Your task to perform on an android device: snooze an email in the gmail app Image 0: 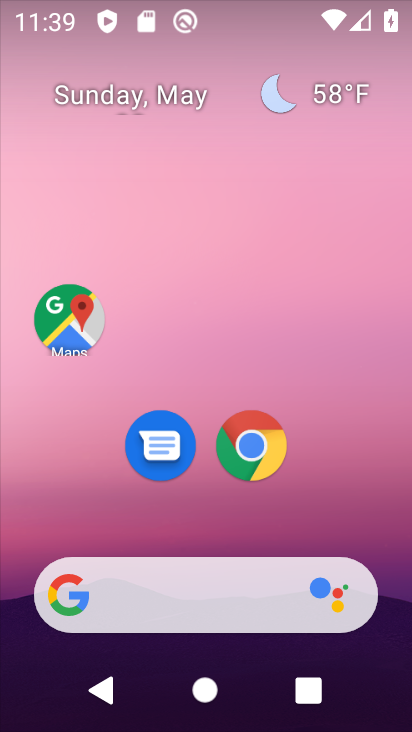
Step 0: drag from (218, 522) to (236, 286)
Your task to perform on an android device: snooze an email in the gmail app Image 1: 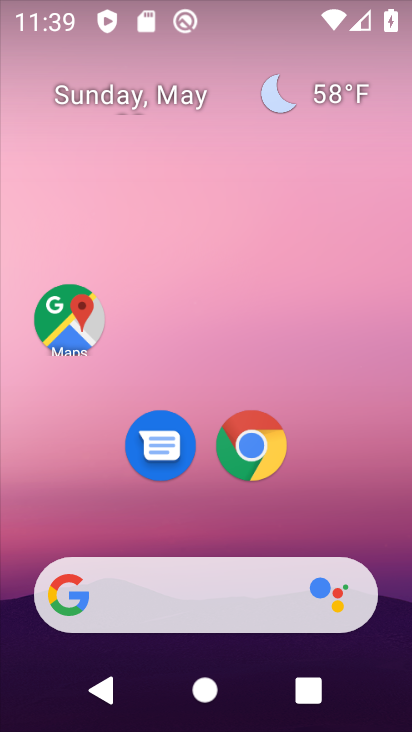
Step 1: drag from (218, 539) to (214, 86)
Your task to perform on an android device: snooze an email in the gmail app Image 2: 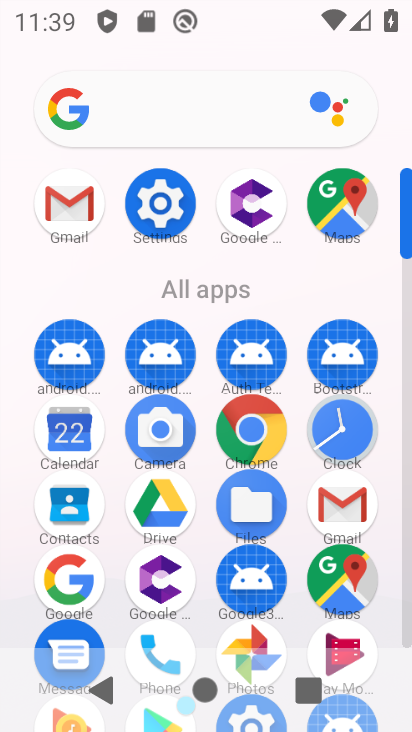
Step 2: click (339, 497)
Your task to perform on an android device: snooze an email in the gmail app Image 3: 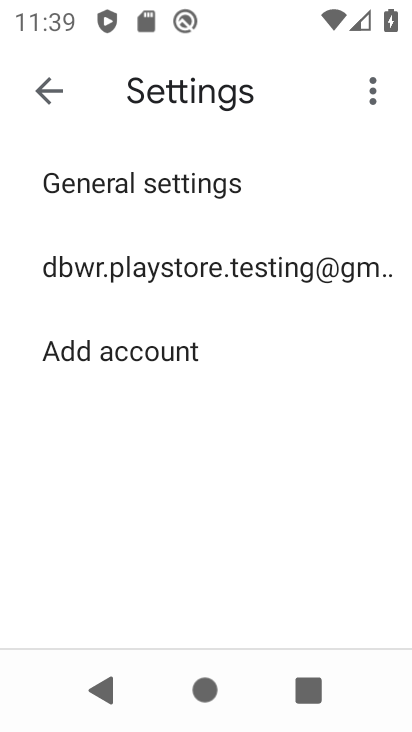
Step 3: click (52, 82)
Your task to perform on an android device: snooze an email in the gmail app Image 4: 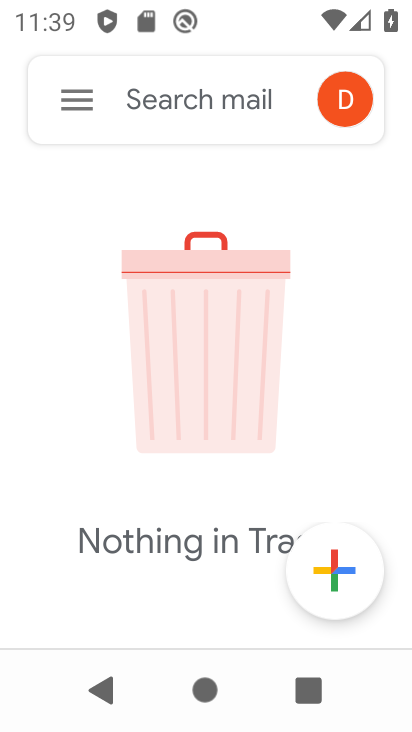
Step 4: click (74, 92)
Your task to perform on an android device: snooze an email in the gmail app Image 5: 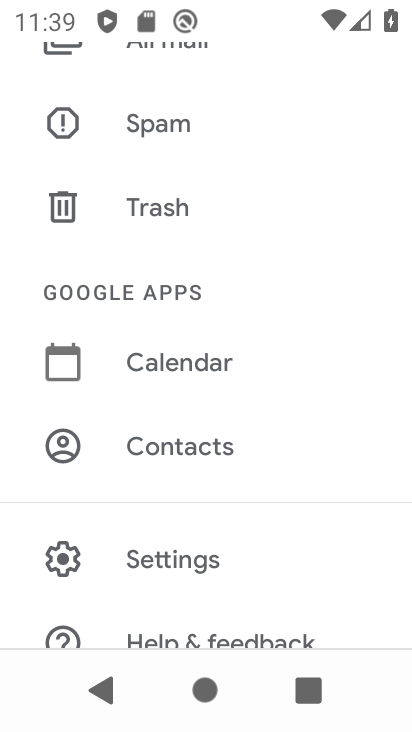
Step 5: press back button
Your task to perform on an android device: snooze an email in the gmail app Image 6: 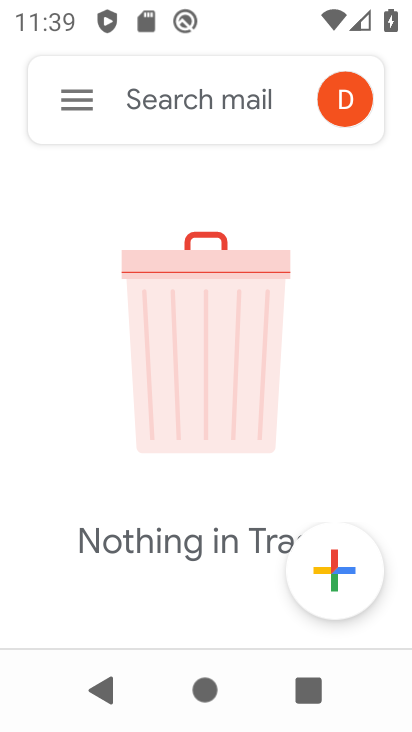
Step 6: click (77, 97)
Your task to perform on an android device: snooze an email in the gmail app Image 7: 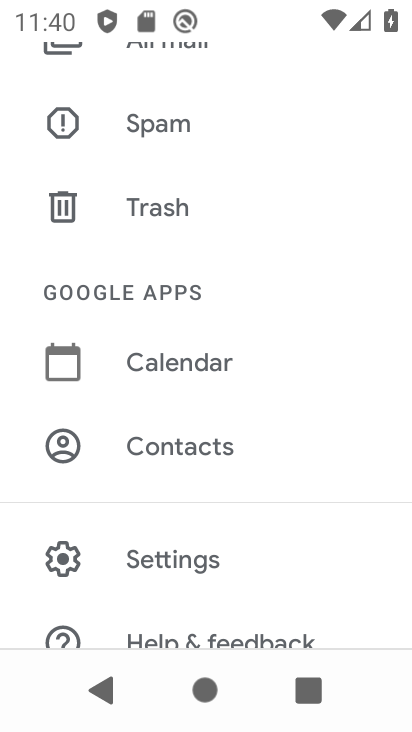
Step 7: task complete